Your task to perform on an android device: change the clock style Image 0: 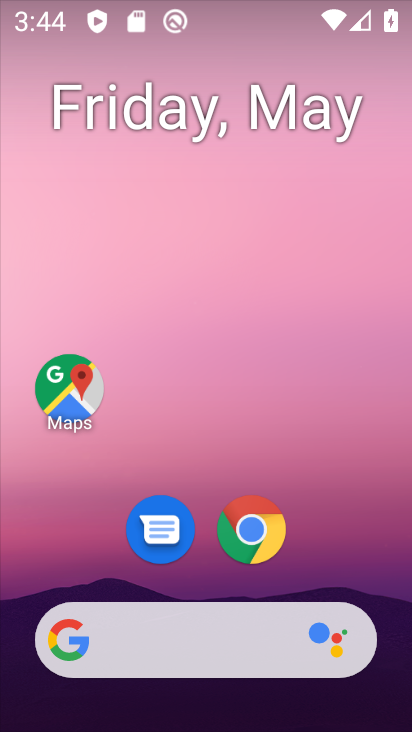
Step 0: drag from (210, 662) to (213, 356)
Your task to perform on an android device: change the clock style Image 1: 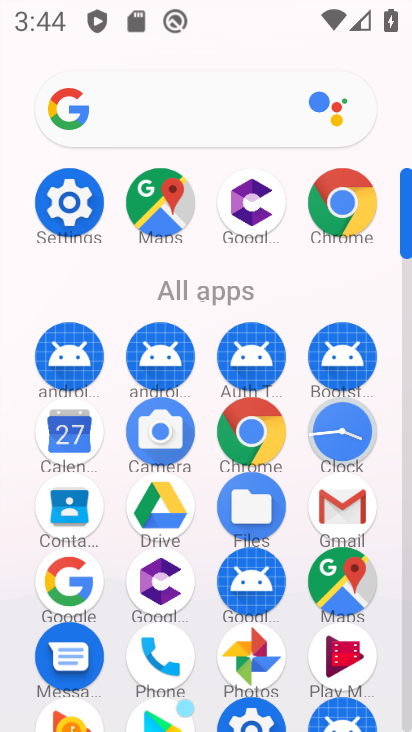
Step 1: click (353, 449)
Your task to perform on an android device: change the clock style Image 2: 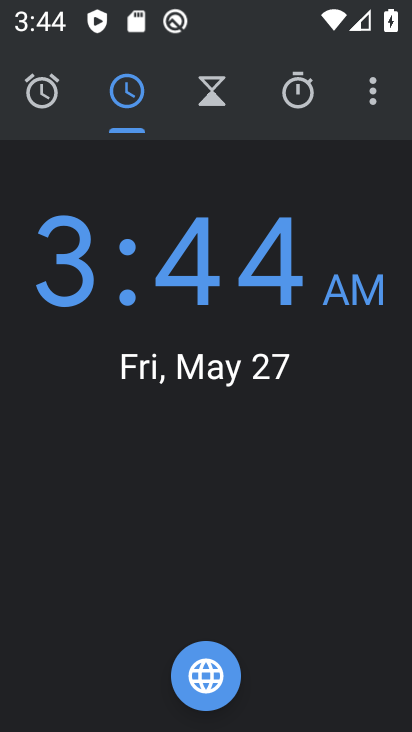
Step 2: click (379, 95)
Your task to perform on an android device: change the clock style Image 3: 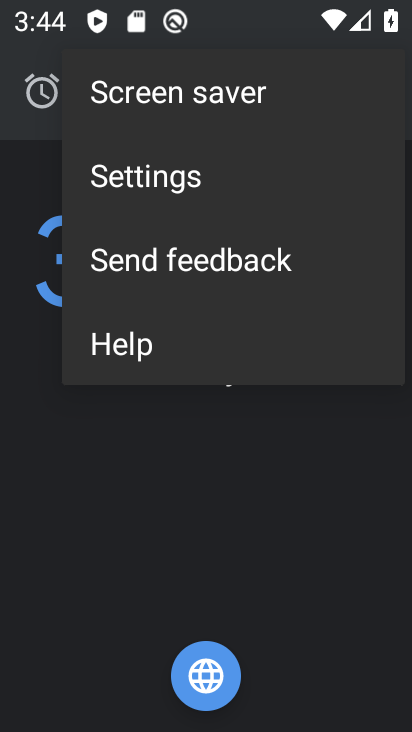
Step 3: click (208, 170)
Your task to perform on an android device: change the clock style Image 4: 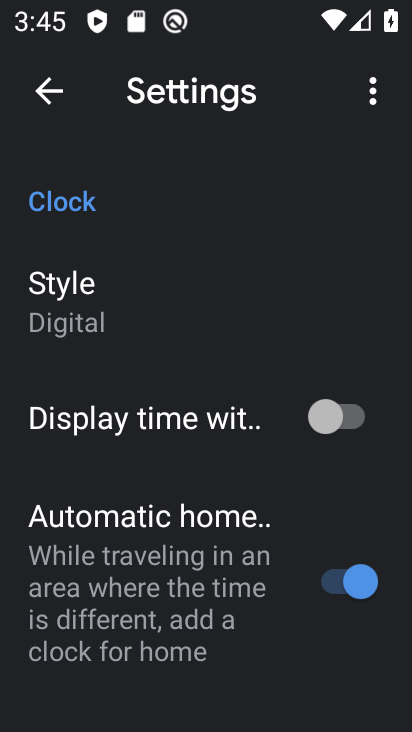
Step 4: drag from (184, 525) to (203, 354)
Your task to perform on an android device: change the clock style Image 5: 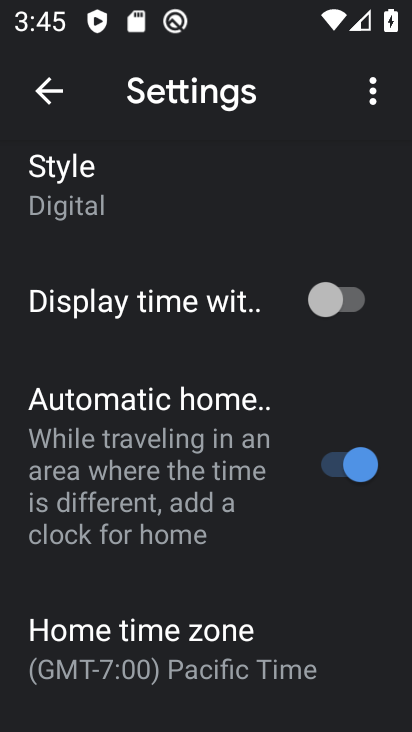
Step 5: click (155, 168)
Your task to perform on an android device: change the clock style Image 6: 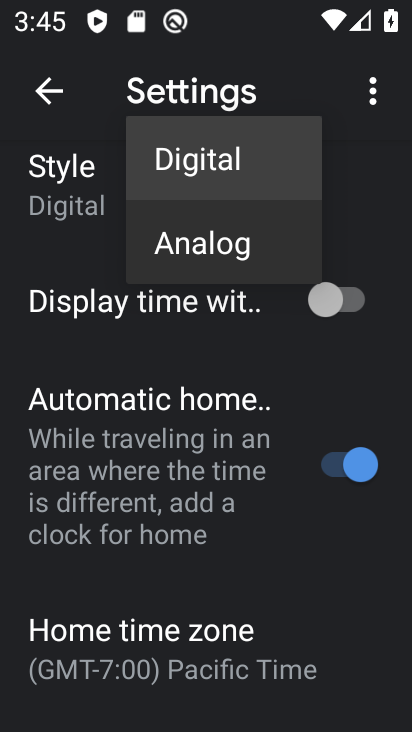
Step 6: click (205, 259)
Your task to perform on an android device: change the clock style Image 7: 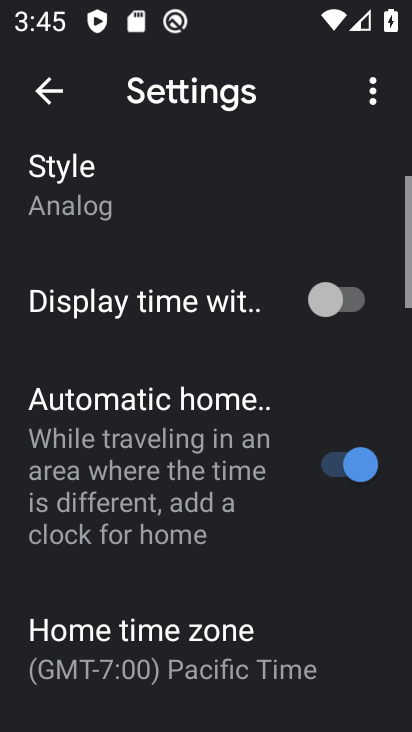
Step 7: task complete